Your task to perform on an android device: open app "NewsBreak: Local News & Alerts" (install if not already installed) Image 0: 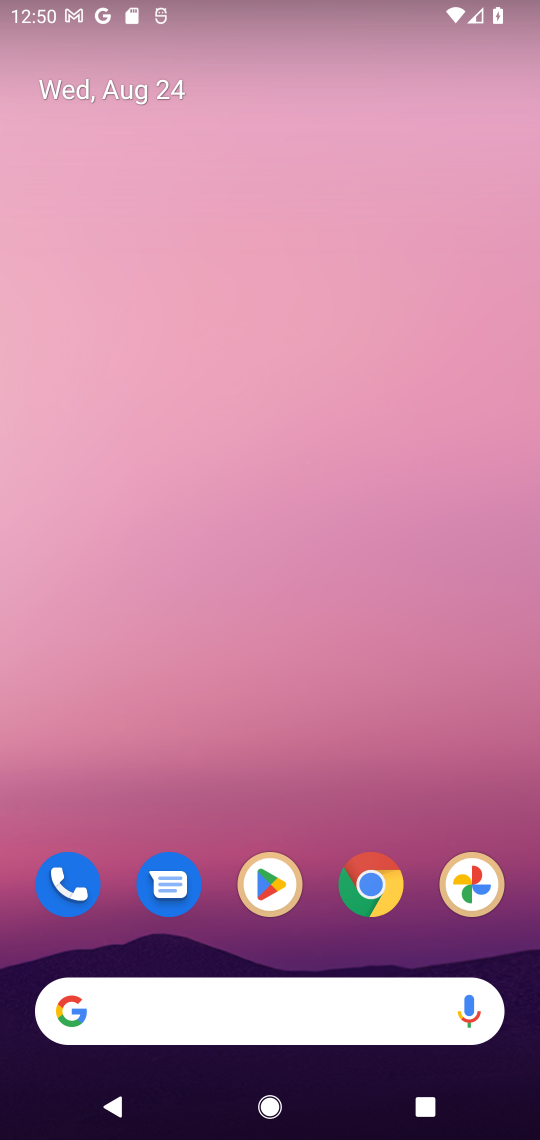
Step 0: drag from (276, 1030) to (368, 261)
Your task to perform on an android device: open app "NewsBreak: Local News & Alerts" (install if not already installed) Image 1: 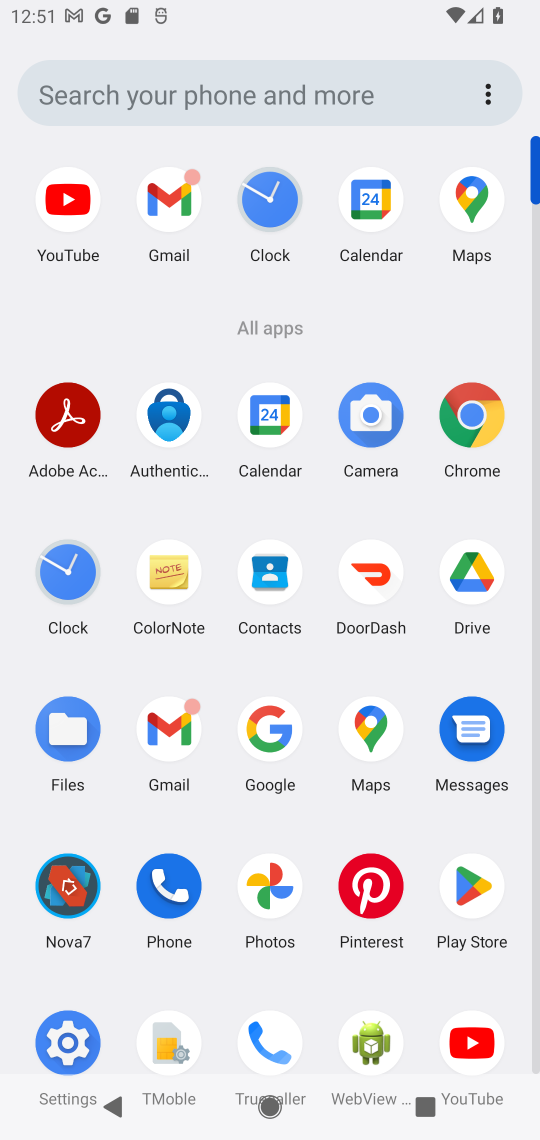
Step 1: click (476, 886)
Your task to perform on an android device: open app "NewsBreak: Local News & Alerts" (install if not already installed) Image 2: 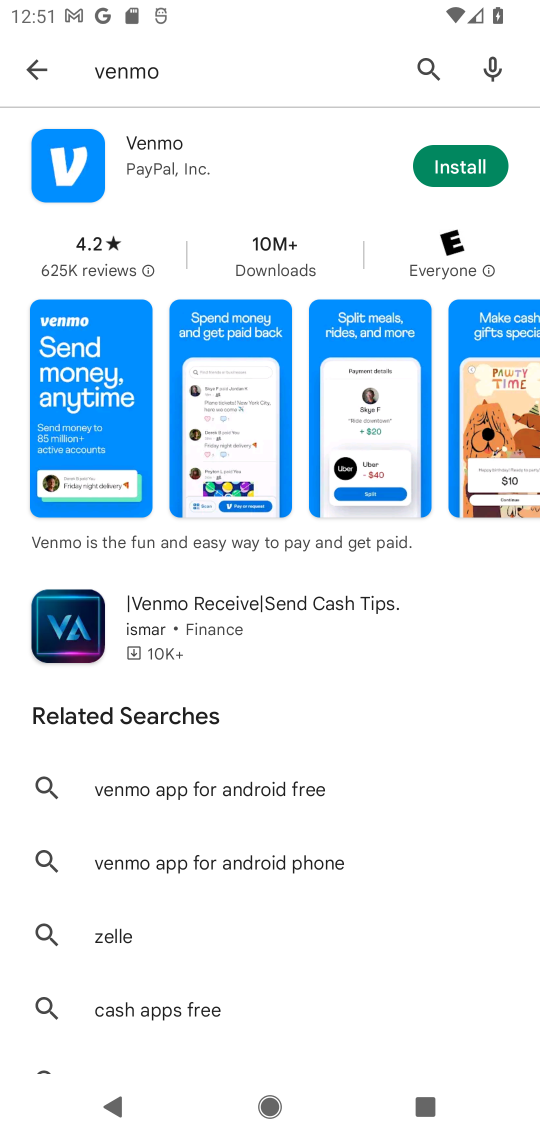
Step 2: press back button
Your task to perform on an android device: open app "NewsBreak: Local News & Alerts" (install if not already installed) Image 3: 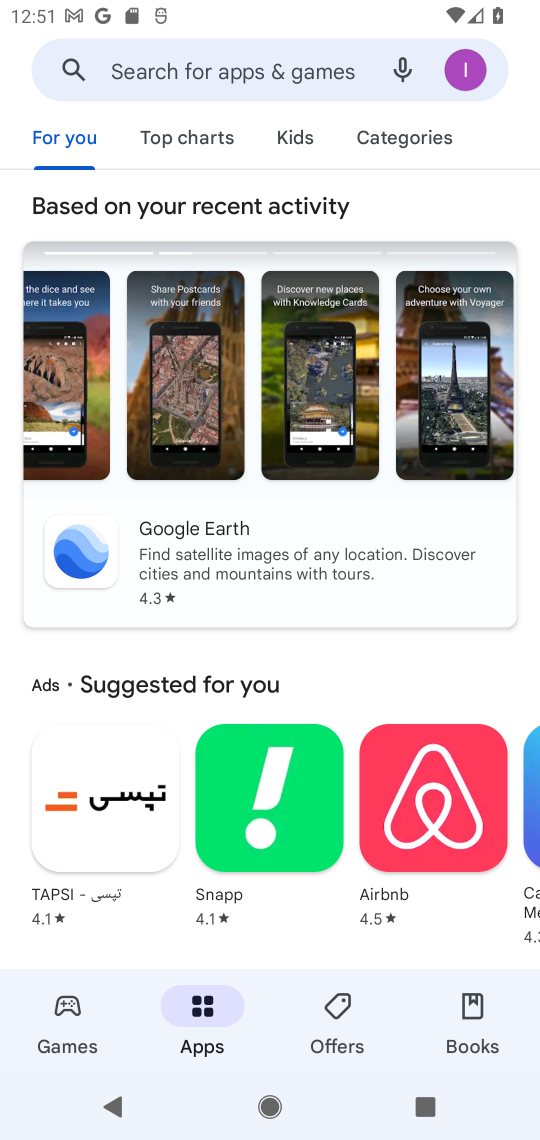
Step 3: click (290, 76)
Your task to perform on an android device: open app "NewsBreak: Local News & Alerts" (install if not already installed) Image 4: 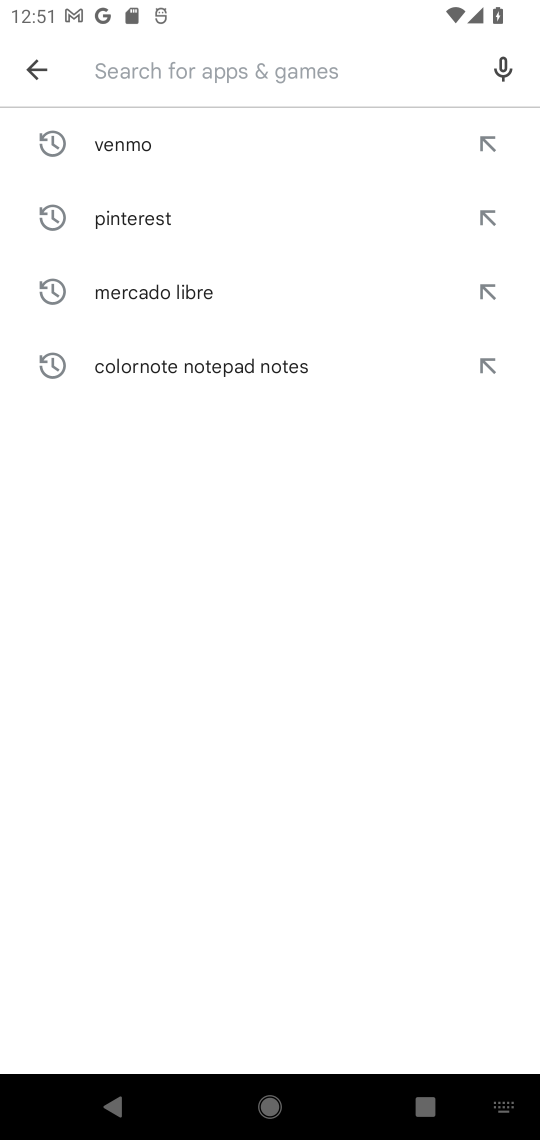
Step 4: type "NewsBreak: Local News & Alerts"
Your task to perform on an android device: open app "NewsBreak: Local News & Alerts" (install if not already installed) Image 5: 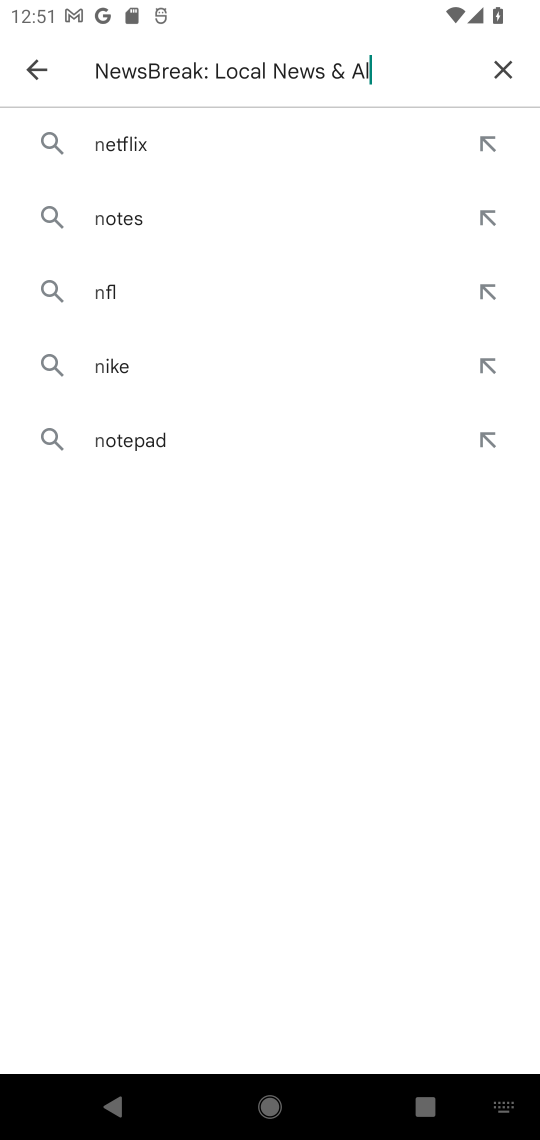
Step 5: type ""
Your task to perform on an android device: open app "NewsBreak: Local News & Alerts" (install if not already installed) Image 6: 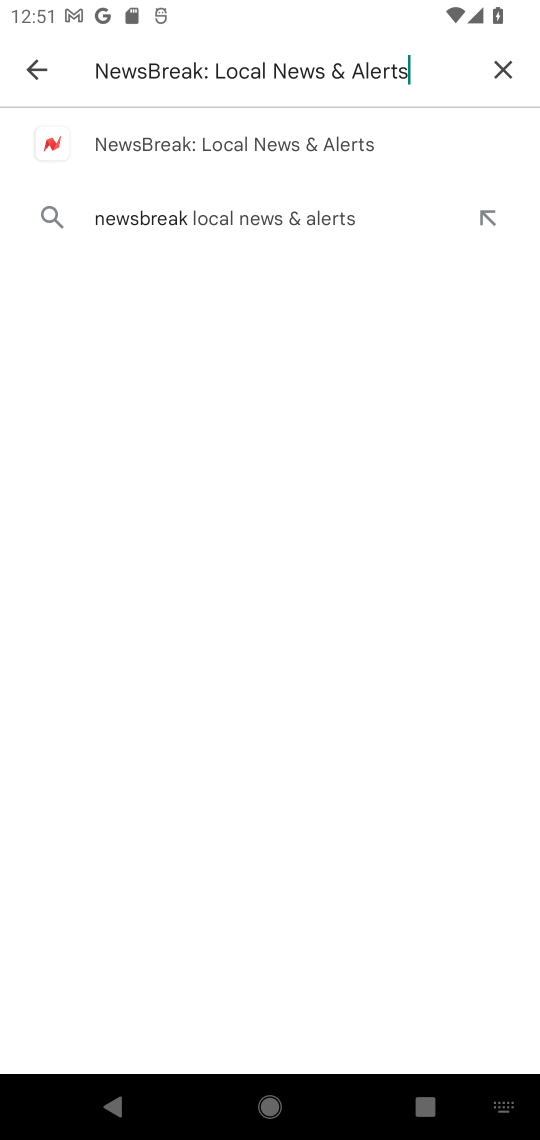
Step 6: click (230, 146)
Your task to perform on an android device: open app "NewsBreak: Local News & Alerts" (install if not already installed) Image 7: 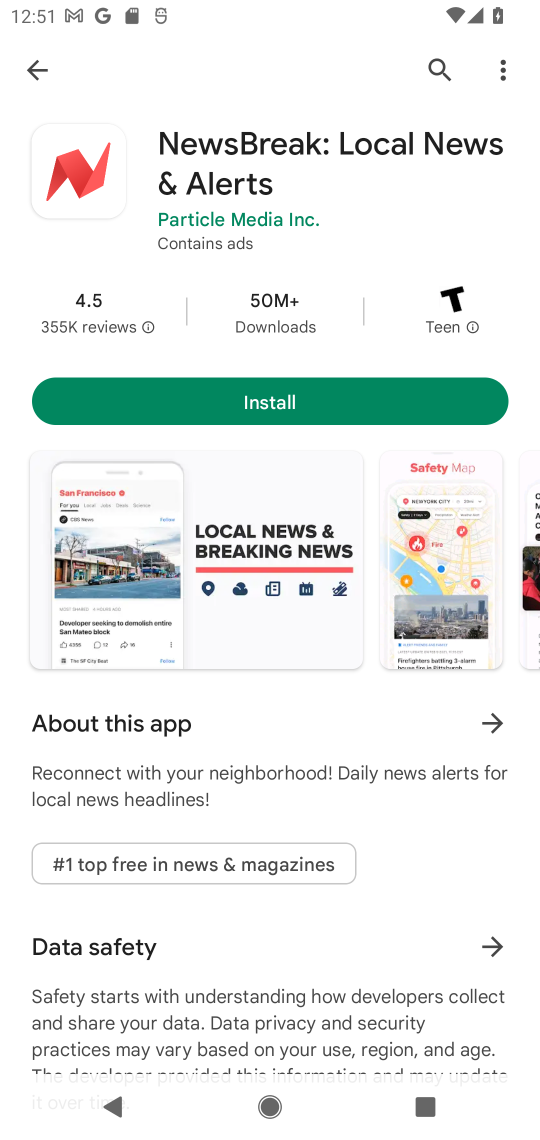
Step 7: click (243, 399)
Your task to perform on an android device: open app "NewsBreak: Local News & Alerts" (install if not already installed) Image 8: 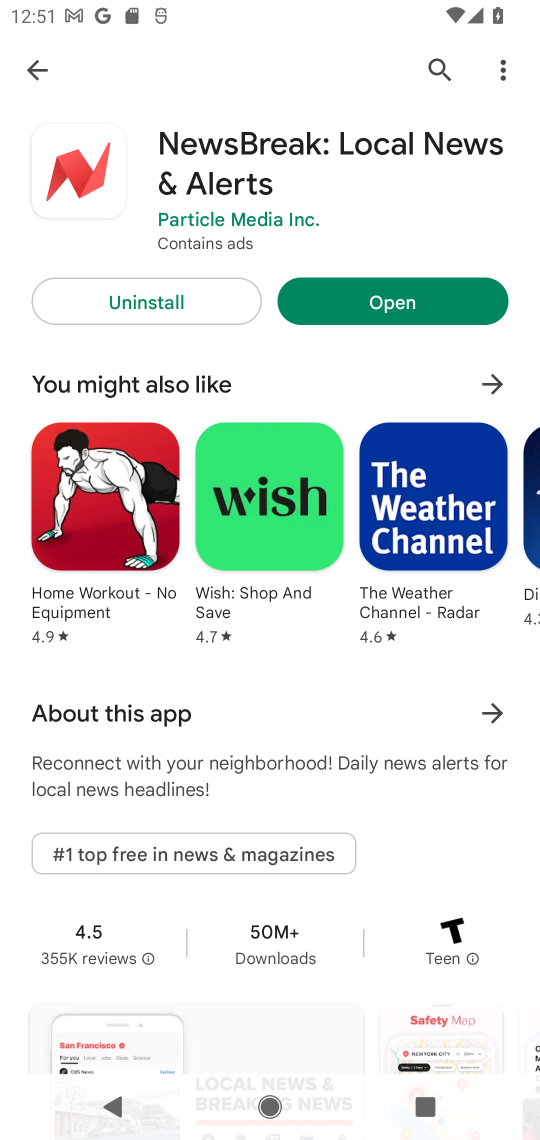
Step 8: click (375, 301)
Your task to perform on an android device: open app "NewsBreak: Local News & Alerts" (install if not already installed) Image 9: 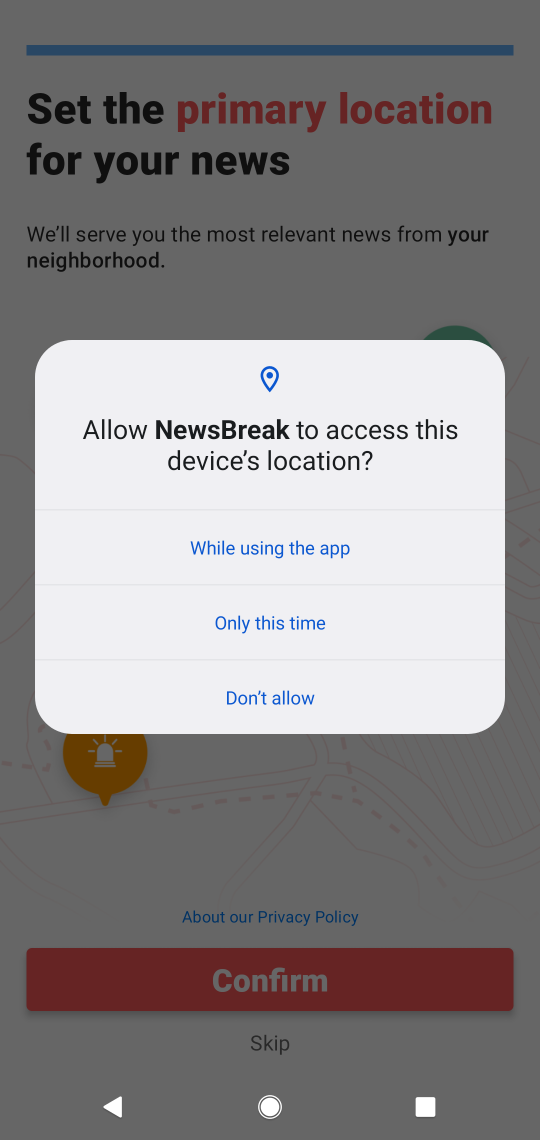
Step 9: click (271, 542)
Your task to perform on an android device: open app "NewsBreak: Local News & Alerts" (install if not already installed) Image 10: 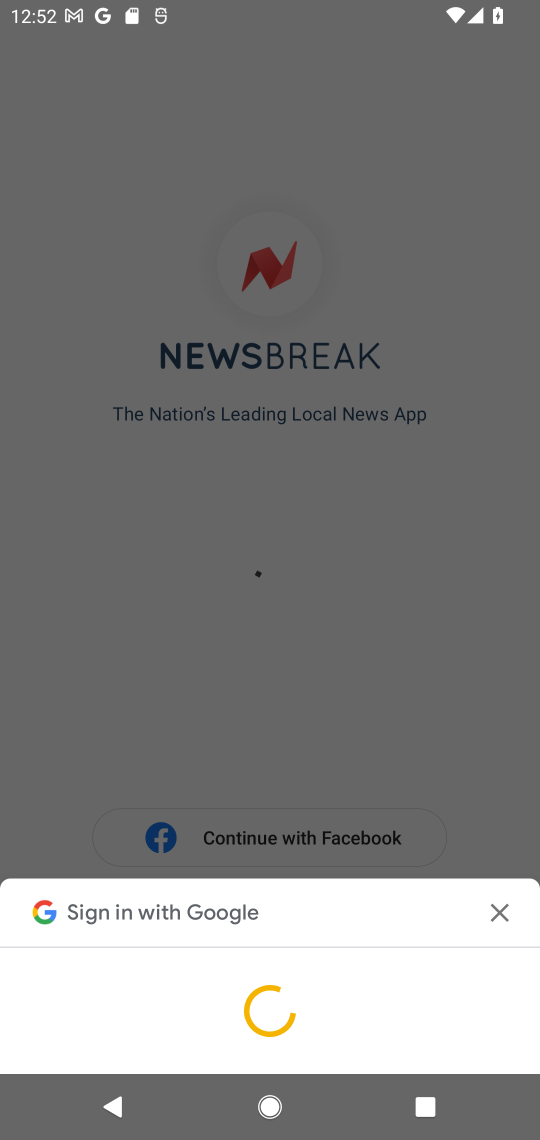
Step 10: task complete